Your task to perform on an android device: Go to network settings Image 0: 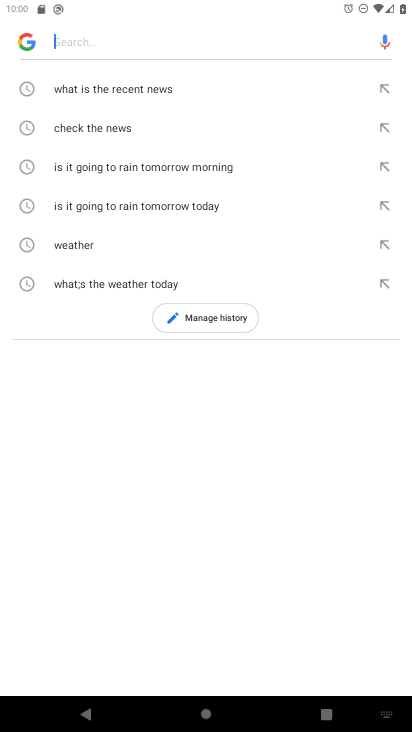
Step 0: press home button
Your task to perform on an android device: Go to network settings Image 1: 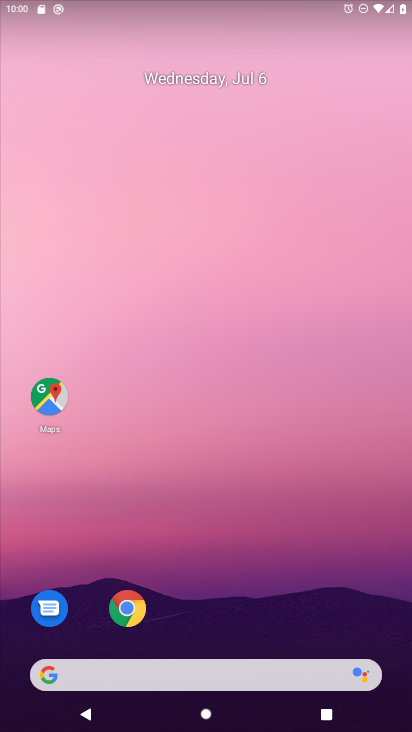
Step 1: drag from (142, 679) to (170, 160)
Your task to perform on an android device: Go to network settings Image 2: 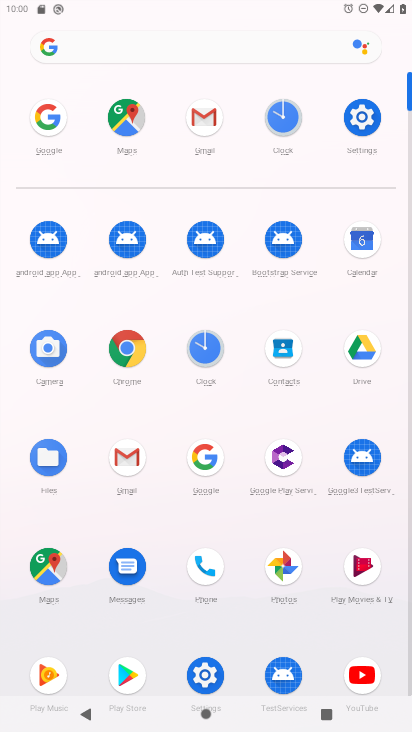
Step 2: click (367, 105)
Your task to perform on an android device: Go to network settings Image 3: 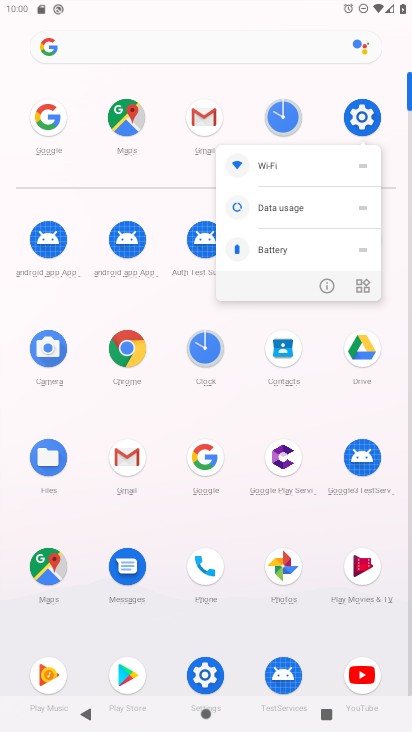
Step 3: click (367, 123)
Your task to perform on an android device: Go to network settings Image 4: 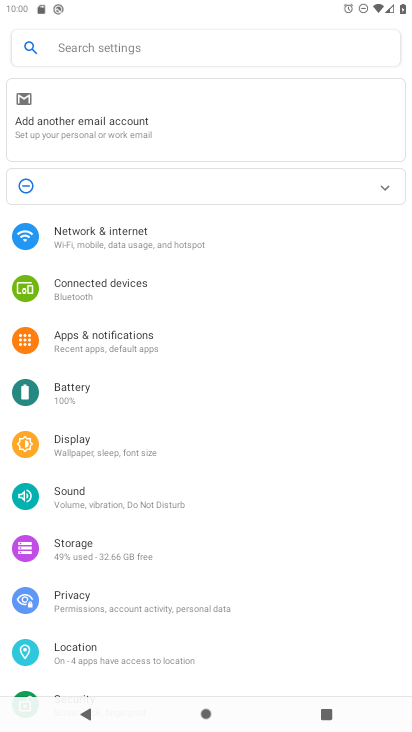
Step 4: click (152, 237)
Your task to perform on an android device: Go to network settings Image 5: 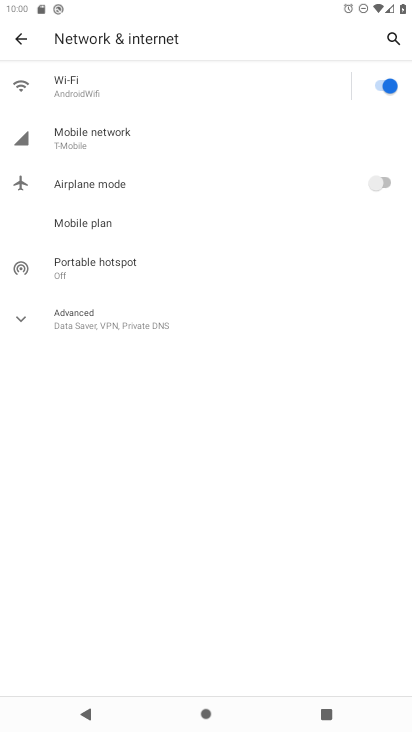
Step 5: click (66, 319)
Your task to perform on an android device: Go to network settings Image 6: 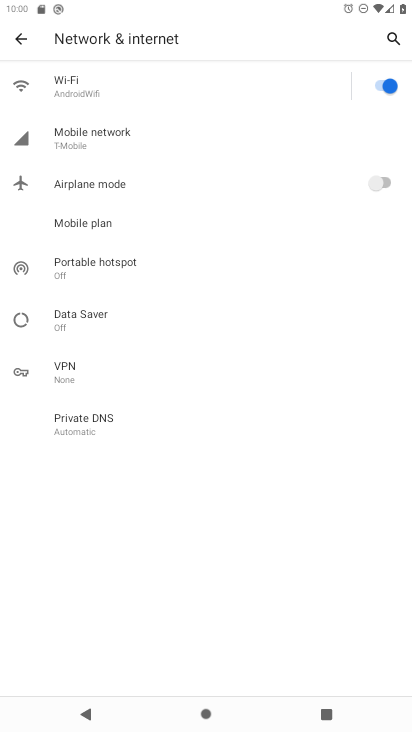
Step 6: click (107, 148)
Your task to perform on an android device: Go to network settings Image 7: 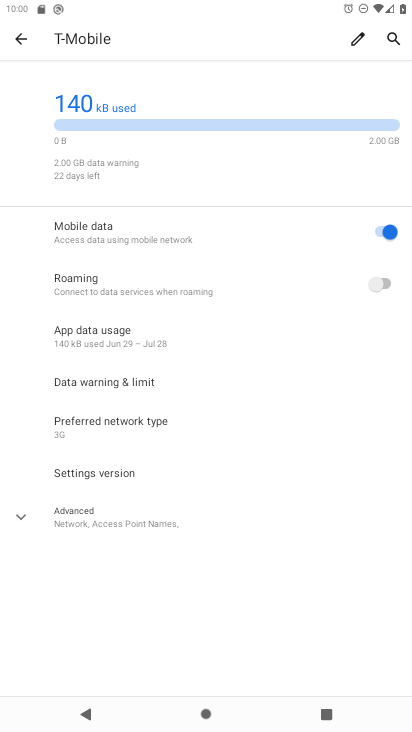
Step 7: click (97, 531)
Your task to perform on an android device: Go to network settings Image 8: 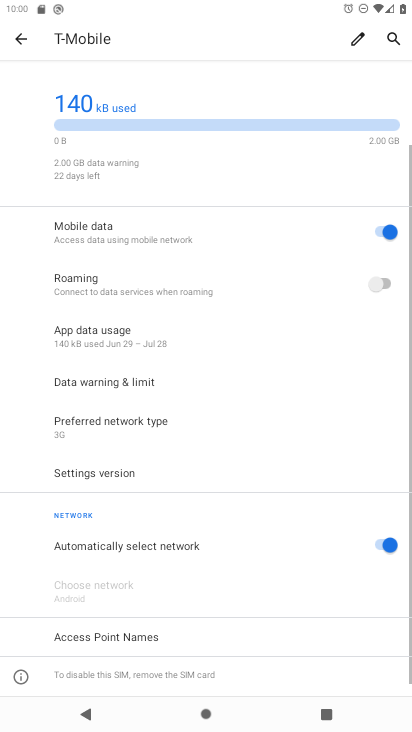
Step 8: task complete